Your task to perform on an android device: Open wifi settings Image 0: 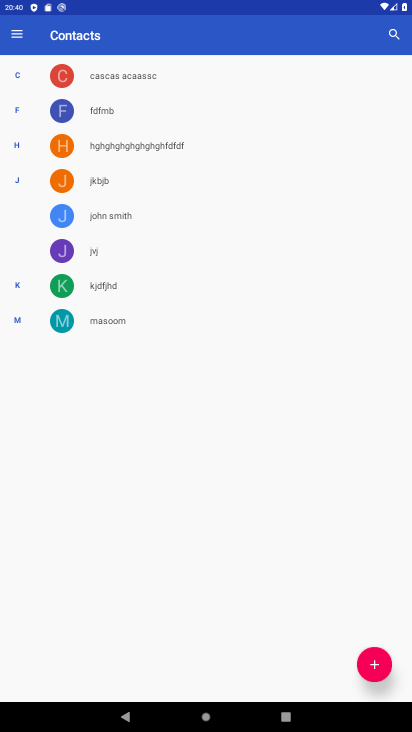
Step 0: press home button
Your task to perform on an android device: Open wifi settings Image 1: 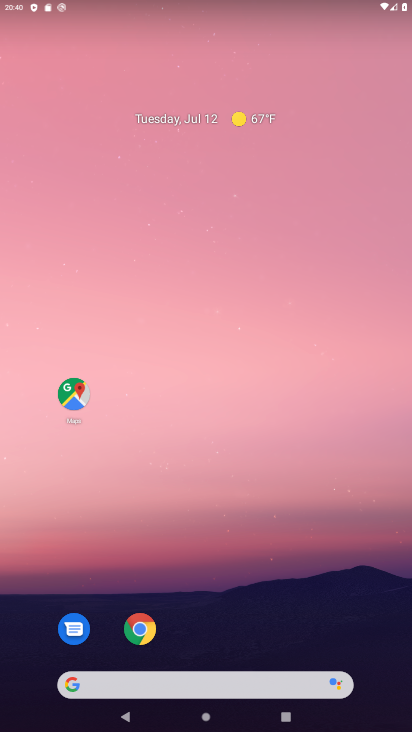
Step 1: drag from (235, 714) to (279, 0)
Your task to perform on an android device: Open wifi settings Image 2: 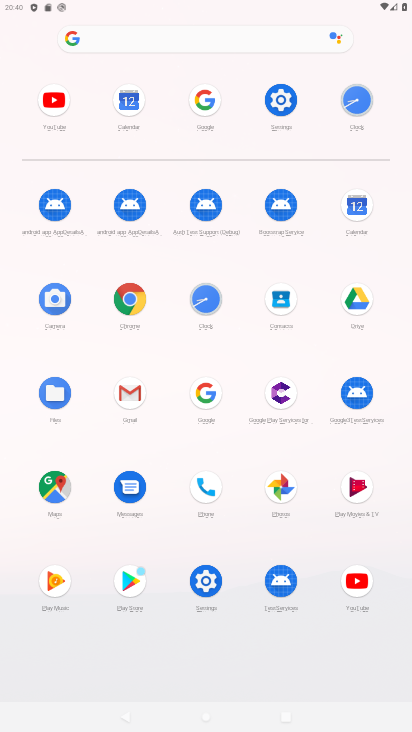
Step 2: click (276, 109)
Your task to perform on an android device: Open wifi settings Image 3: 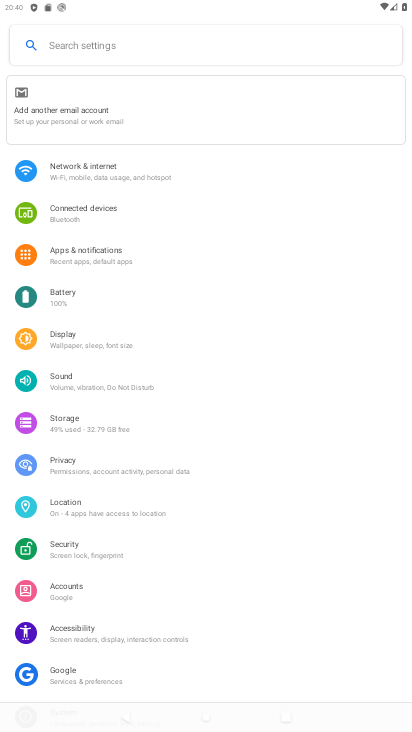
Step 3: click (99, 173)
Your task to perform on an android device: Open wifi settings Image 4: 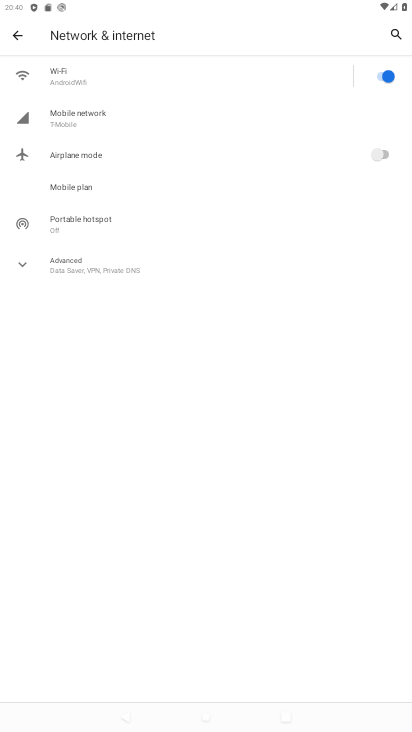
Step 4: click (106, 84)
Your task to perform on an android device: Open wifi settings Image 5: 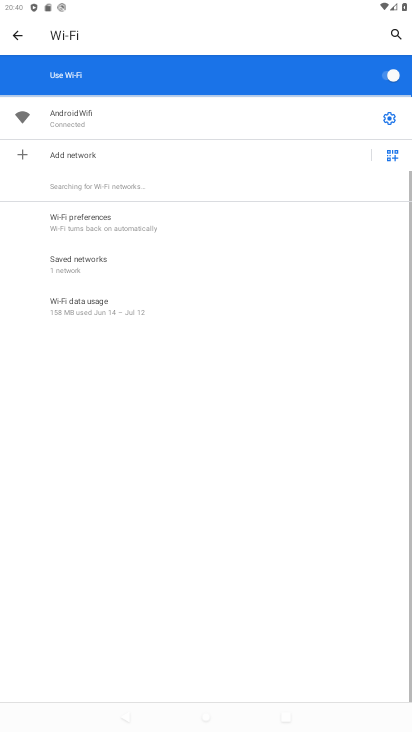
Step 5: click (388, 119)
Your task to perform on an android device: Open wifi settings Image 6: 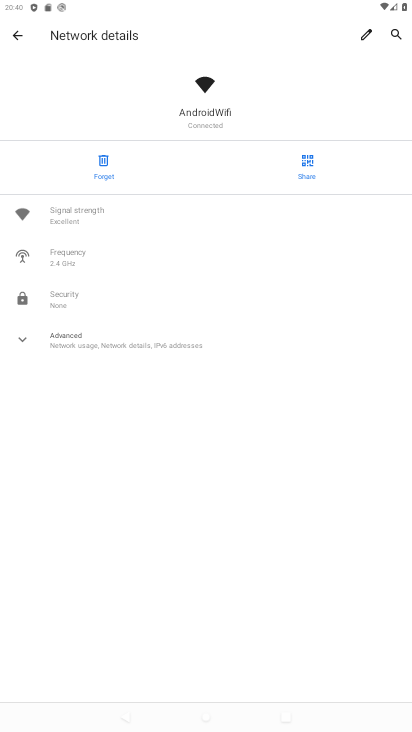
Step 6: task complete